Your task to perform on an android device: change the clock style Image 0: 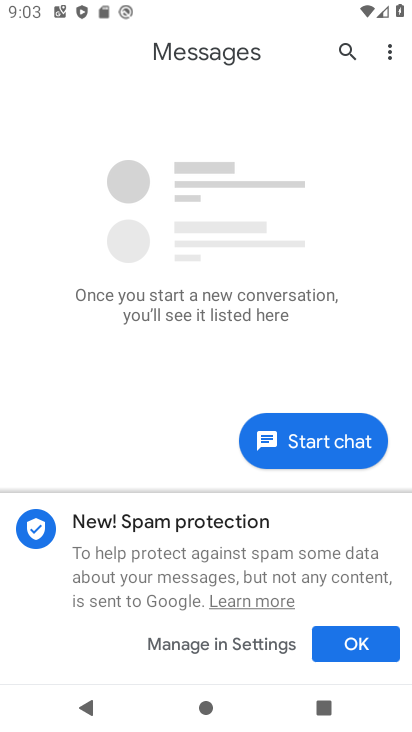
Step 0: press home button
Your task to perform on an android device: change the clock style Image 1: 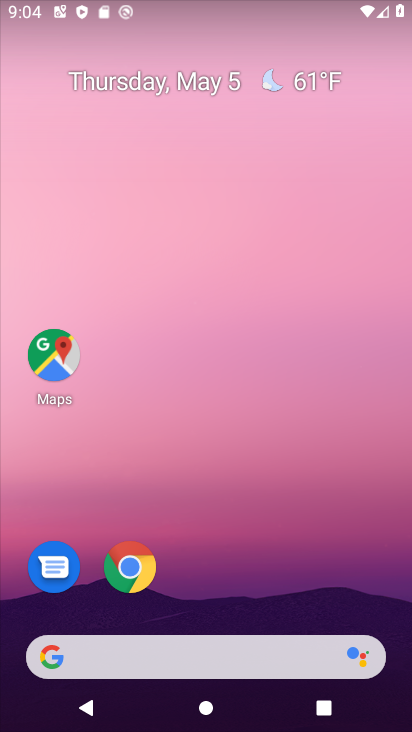
Step 1: drag from (260, 553) to (293, 107)
Your task to perform on an android device: change the clock style Image 2: 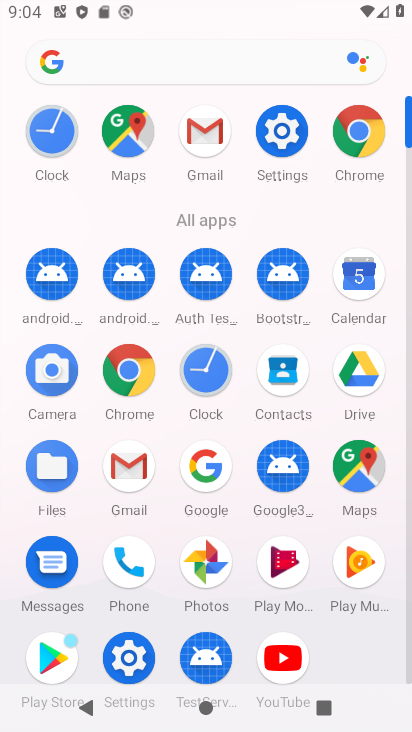
Step 2: click (198, 371)
Your task to perform on an android device: change the clock style Image 3: 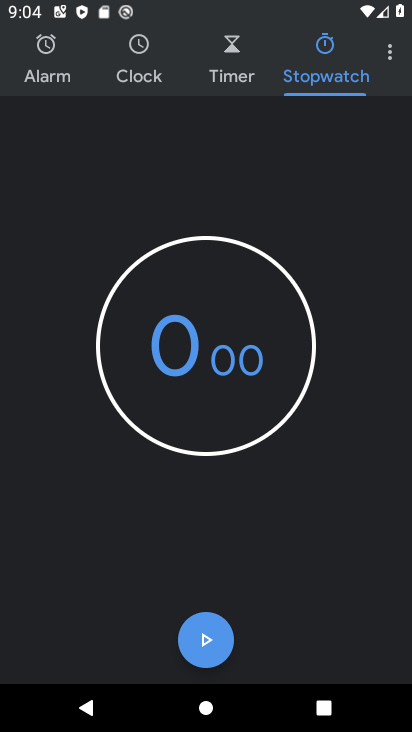
Step 3: click (400, 50)
Your task to perform on an android device: change the clock style Image 4: 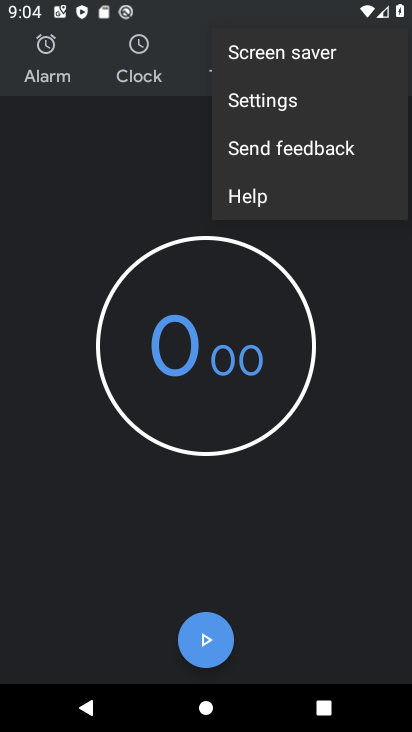
Step 4: click (276, 107)
Your task to perform on an android device: change the clock style Image 5: 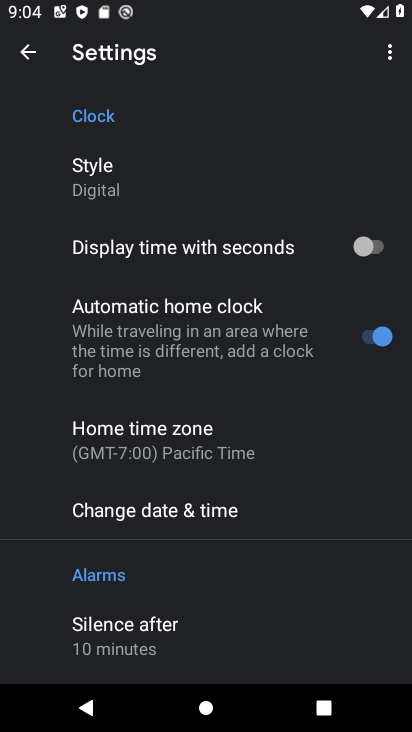
Step 5: click (124, 181)
Your task to perform on an android device: change the clock style Image 6: 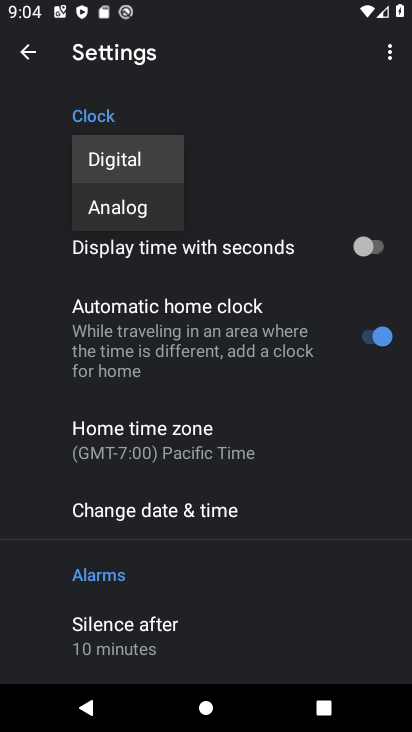
Step 6: click (153, 214)
Your task to perform on an android device: change the clock style Image 7: 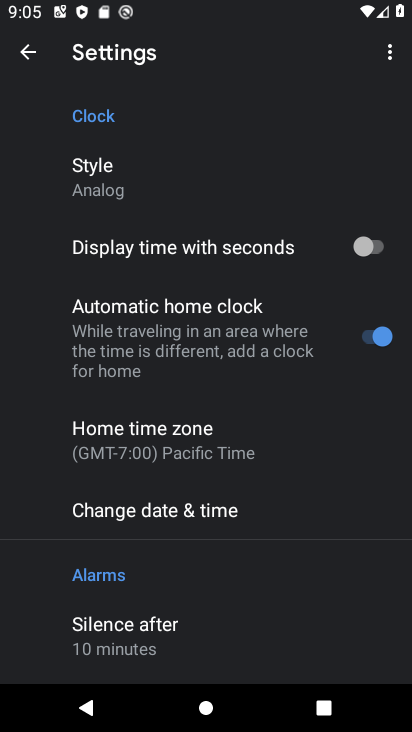
Step 7: task complete